Your task to perform on an android device: Open eBay Image 0: 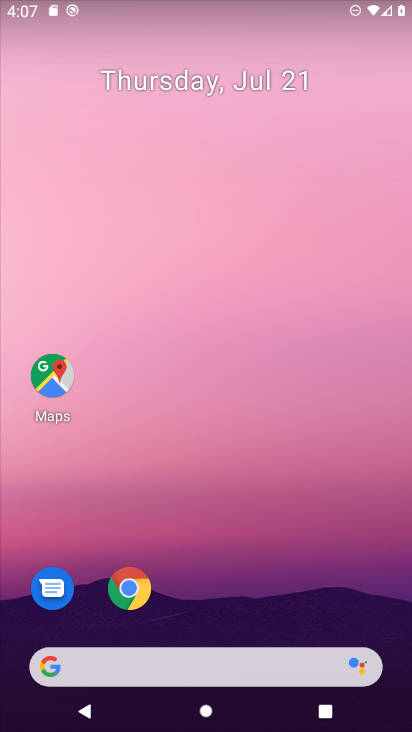
Step 0: press home button
Your task to perform on an android device: Open eBay Image 1: 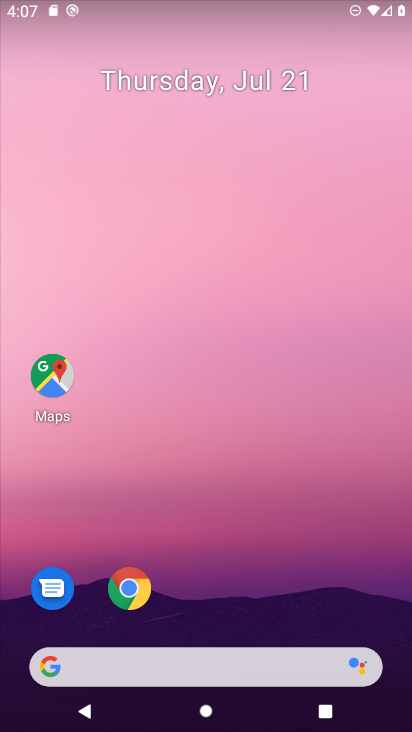
Step 1: drag from (199, 667) to (200, 70)
Your task to perform on an android device: Open eBay Image 2: 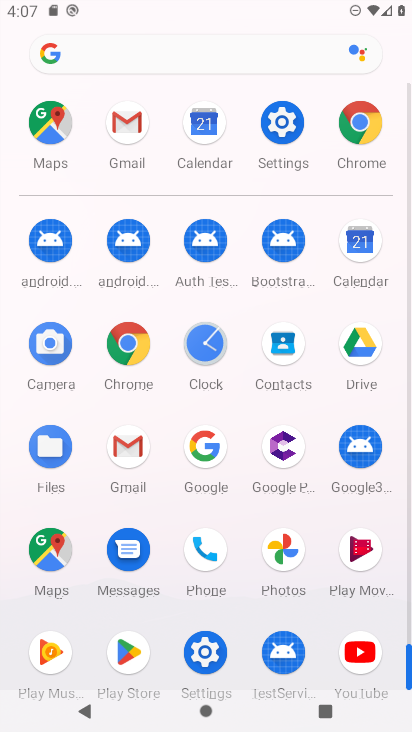
Step 2: click (282, 157)
Your task to perform on an android device: Open eBay Image 3: 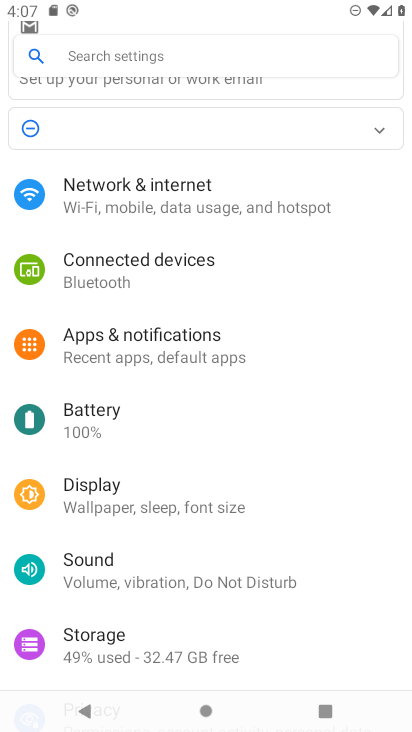
Step 3: press home button
Your task to perform on an android device: Open eBay Image 4: 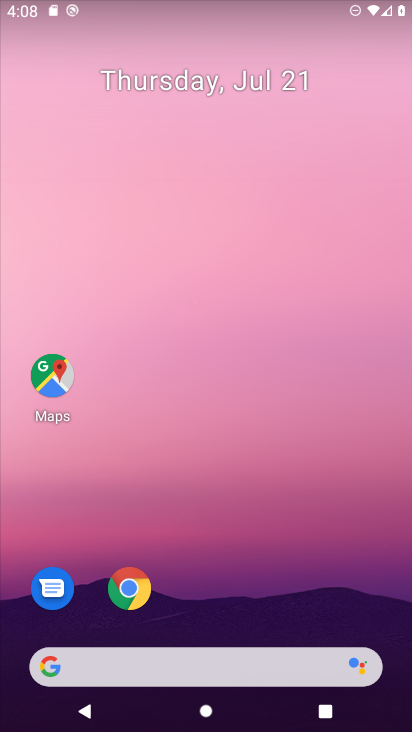
Step 4: drag from (219, 569) to (215, 173)
Your task to perform on an android device: Open eBay Image 5: 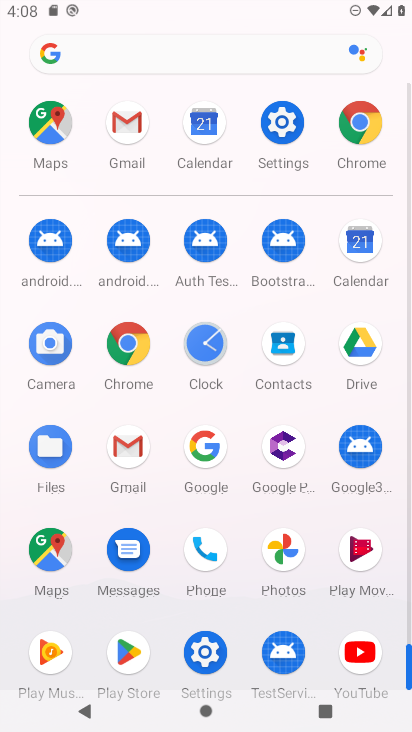
Step 5: click (345, 130)
Your task to perform on an android device: Open eBay Image 6: 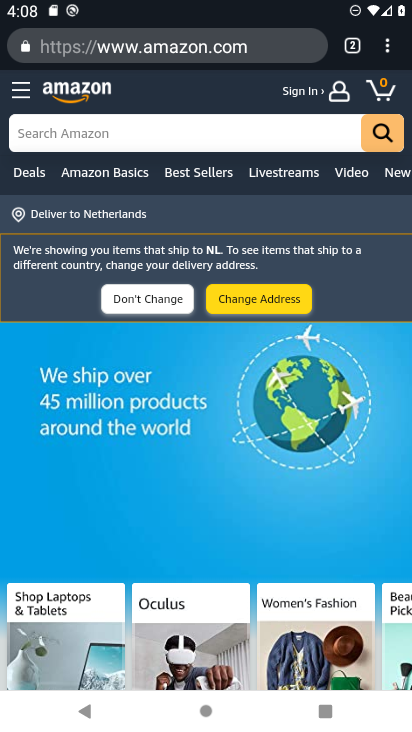
Step 6: click (175, 50)
Your task to perform on an android device: Open eBay Image 7: 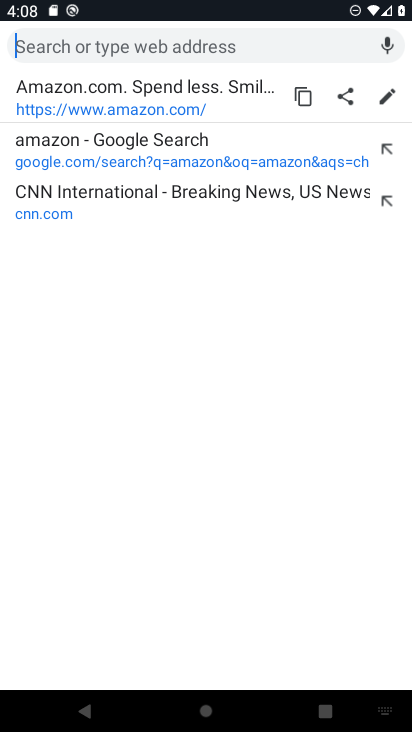
Step 7: type ""
Your task to perform on an android device: Open eBay Image 8: 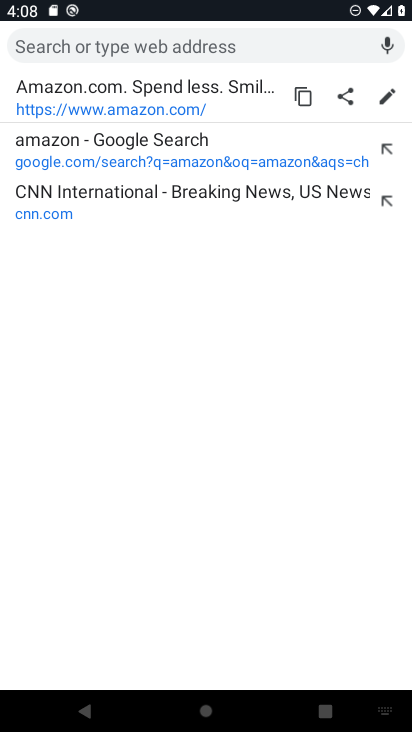
Step 8: type "ebay"
Your task to perform on an android device: Open eBay Image 9: 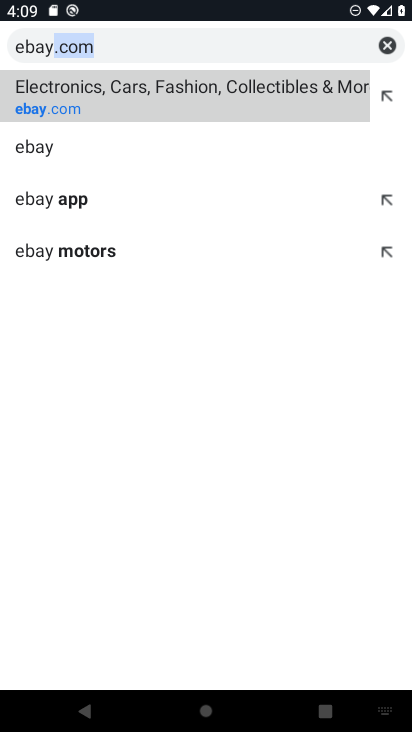
Step 9: click (139, 92)
Your task to perform on an android device: Open eBay Image 10: 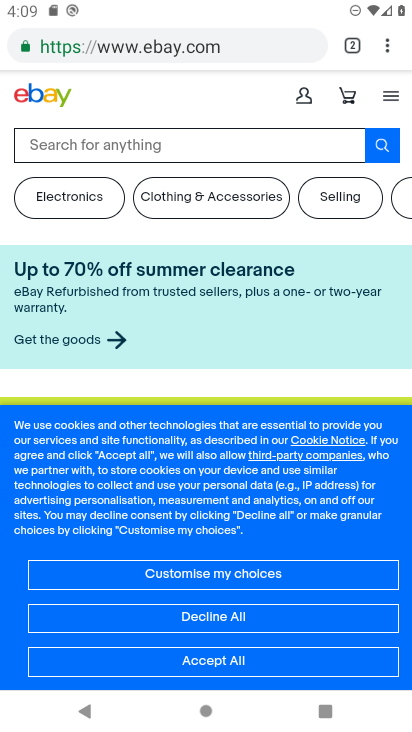
Step 10: task complete